Your task to perform on an android device: Open wifi settings Image 0: 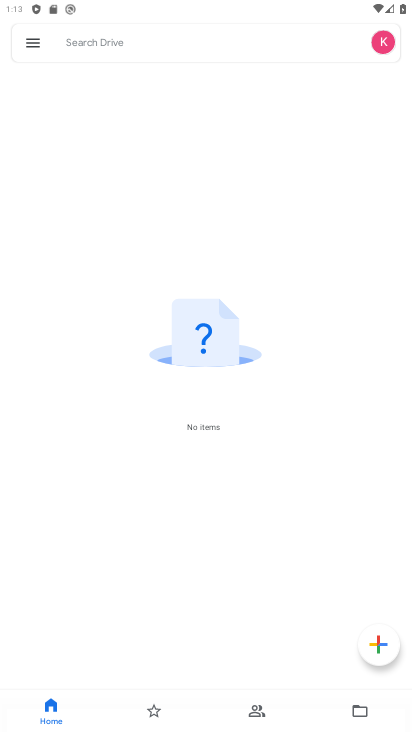
Step 0: press home button
Your task to perform on an android device: Open wifi settings Image 1: 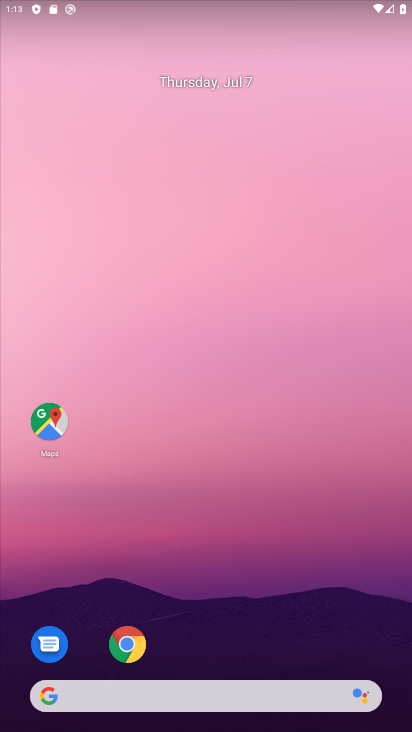
Step 1: drag from (211, 672) to (234, 42)
Your task to perform on an android device: Open wifi settings Image 2: 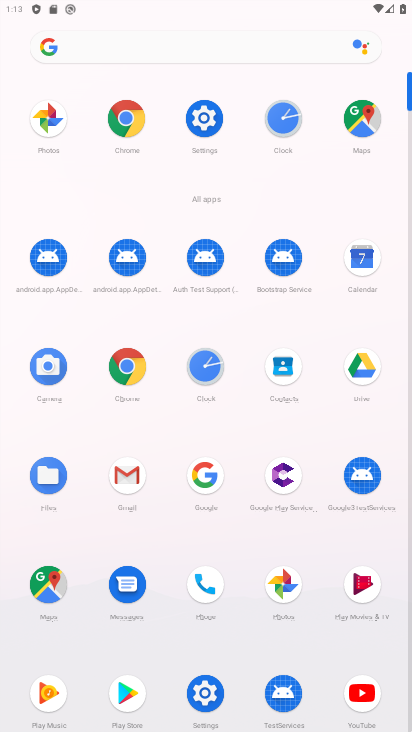
Step 2: click (208, 137)
Your task to perform on an android device: Open wifi settings Image 3: 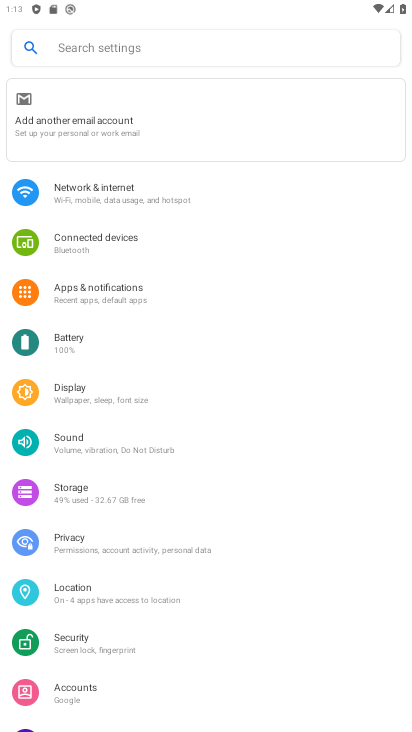
Step 3: click (132, 197)
Your task to perform on an android device: Open wifi settings Image 4: 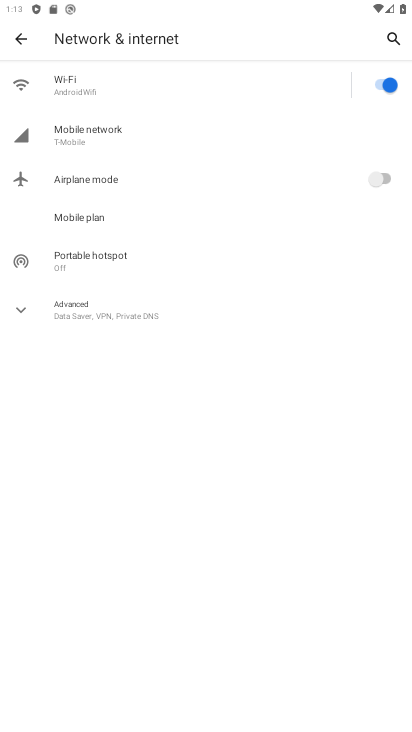
Step 4: click (114, 103)
Your task to perform on an android device: Open wifi settings Image 5: 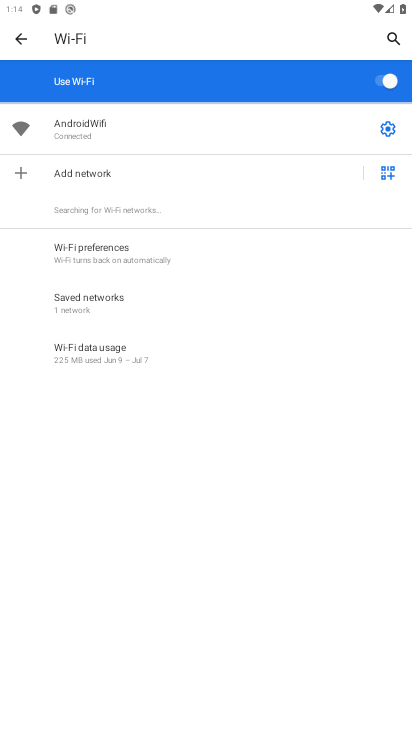
Step 5: task complete